Your task to perform on an android device: all mails in gmail Image 0: 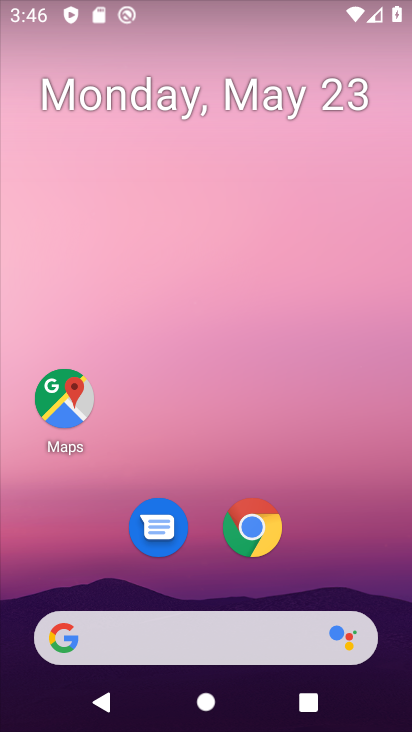
Step 0: drag from (349, 420) to (119, 0)
Your task to perform on an android device: all mails in gmail Image 1: 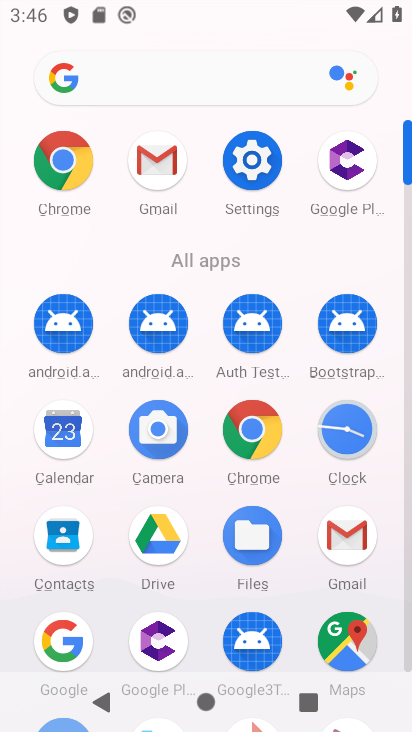
Step 1: click (163, 146)
Your task to perform on an android device: all mails in gmail Image 2: 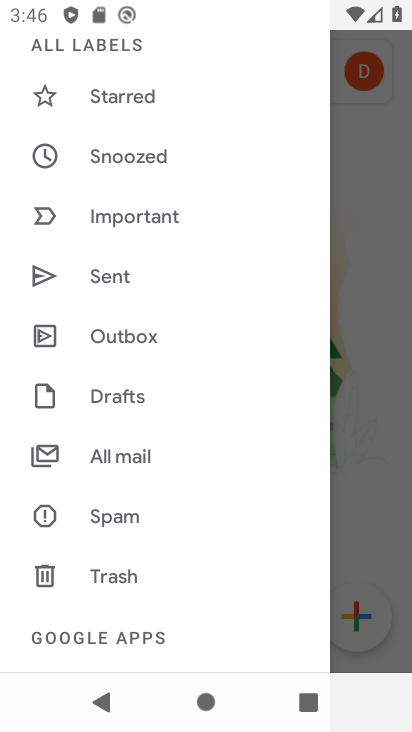
Step 2: click (52, 451)
Your task to perform on an android device: all mails in gmail Image 3: 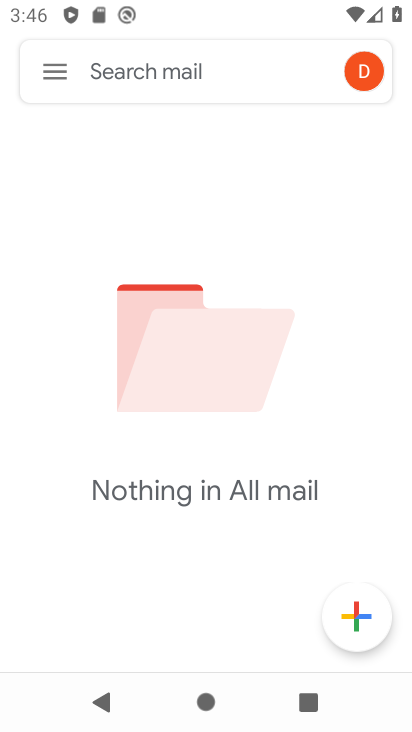
Step 3: task complete